Your task to perform on an android device: Open Yahoo.com Image 0: 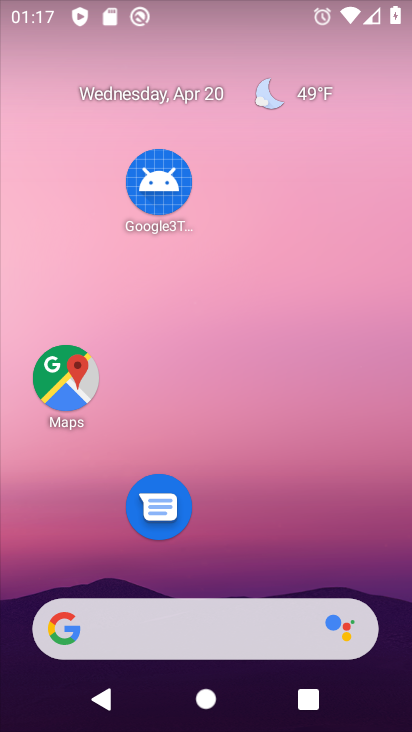
Step 0: drag from (212, 562) to (232, 0)
Your task to perform on an android device: Open Yahoo.com Image 1: 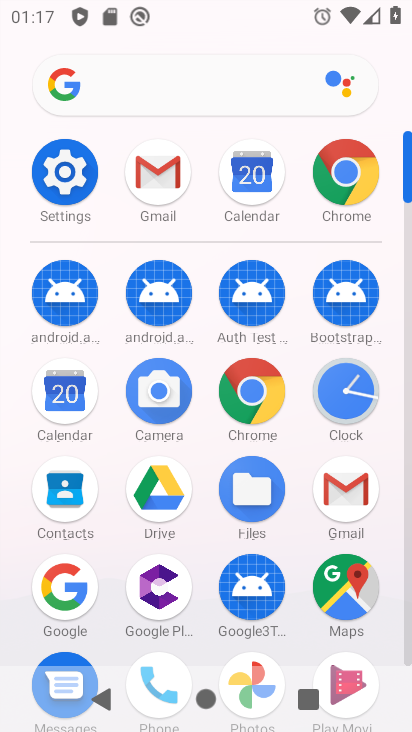
Step 1: click (343, 178)
Your task to perform on an android device: Open Yahoo.com Image 2: 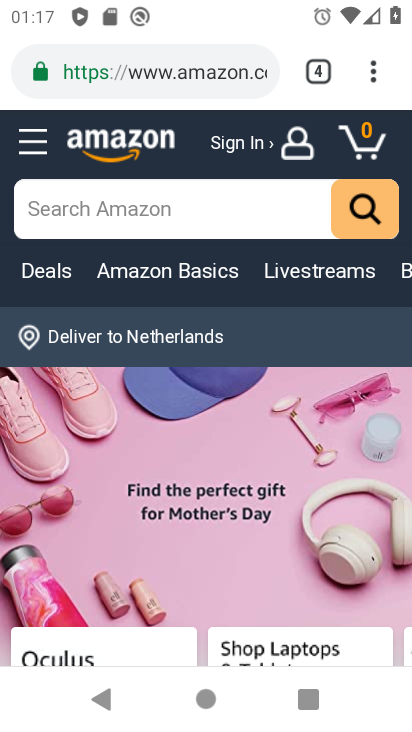
Step 2: click (369, 74)
Your task to perform on an android device: Open Yahoo.com Image 3: 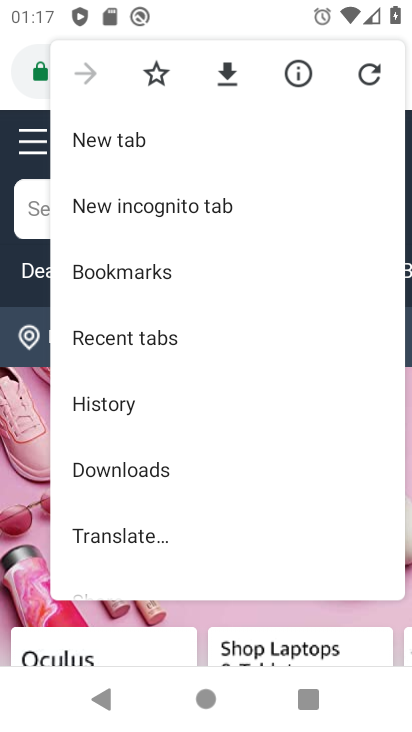
Step 3: click (135, 143)
Your task to perform on an android device: Open Yahoo.com Image 4: 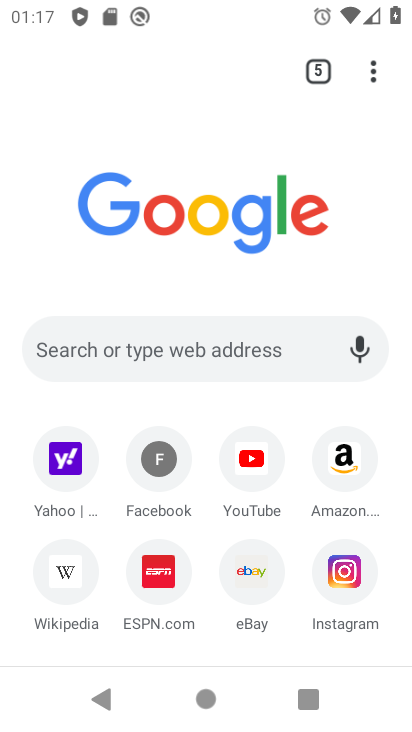
Step 4: click (66, 466)
Your task to perform on an android device: Open Yahoo.com Image 5: 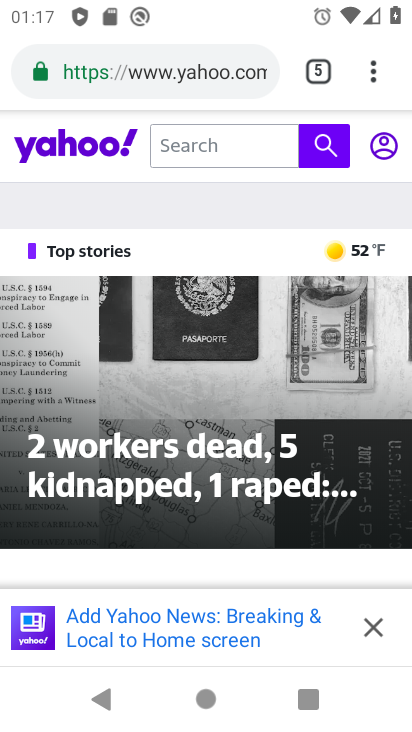
Step 5: task complete